Your task to perform on an android device: Toggle the flashlight Image 0: 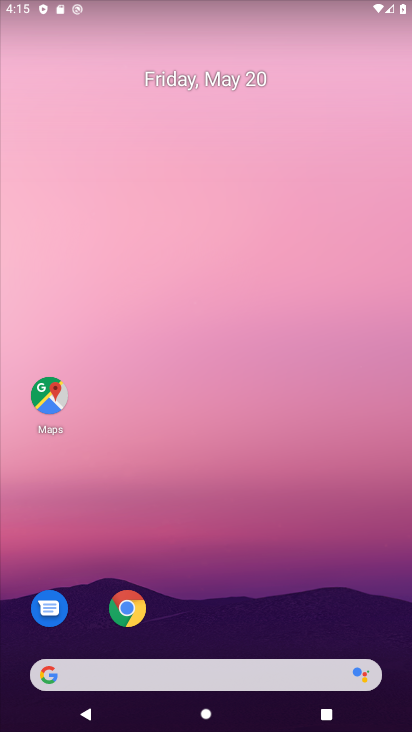
Step 0: drag from (237, 634) to (205, 137)
Your task to perform on an android device: Toggle the flashlight Image 1: 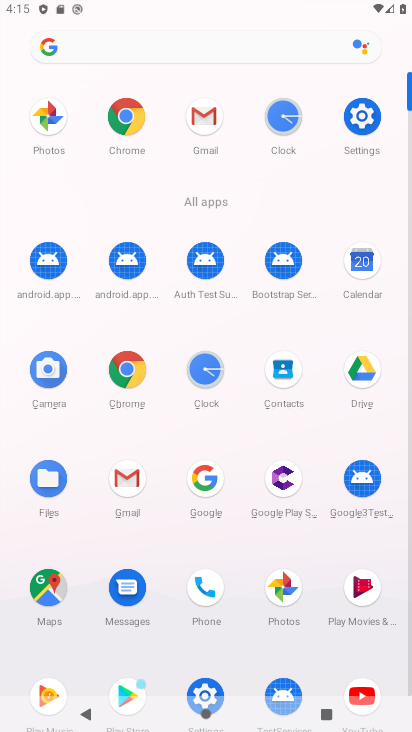
Step 1: click (351, 112)
Your task to perform on an android device: Toggle the flashlight Image 2: 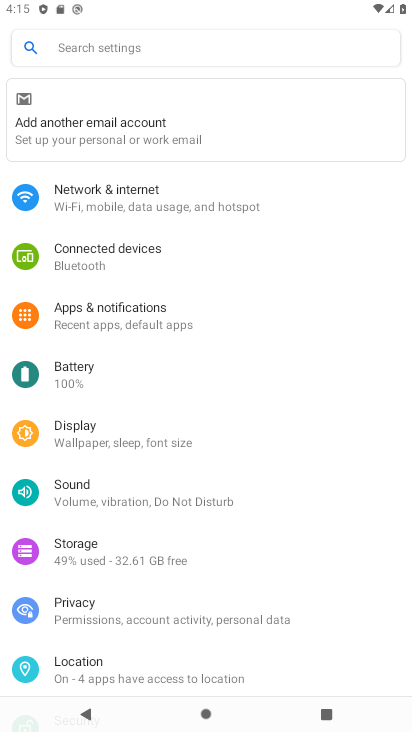
Step 2: task complete